Your task to perform on an android device: What's on my calendar today? Image 0: 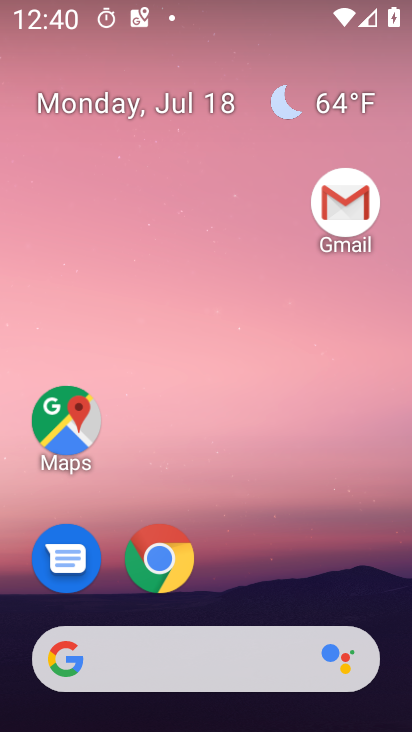
Step 0: drag from (356, 563) to (389, 95)
Your task to perform on an android device: What's on my calendar today? Image 1: 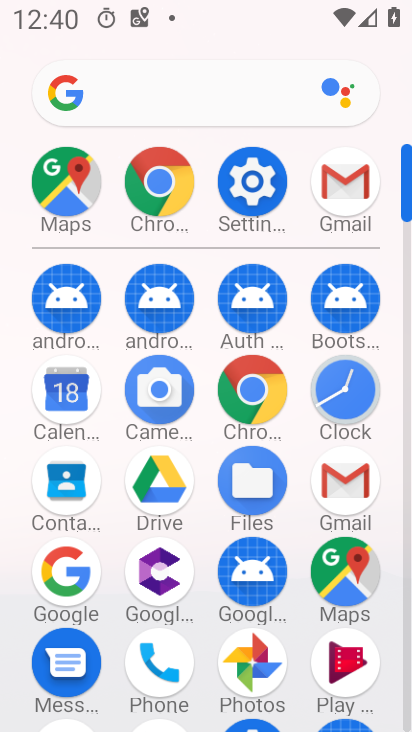
Step 1: click (70, 390)
Your task to perform on an android device: What's on my calendar today? Image 2: 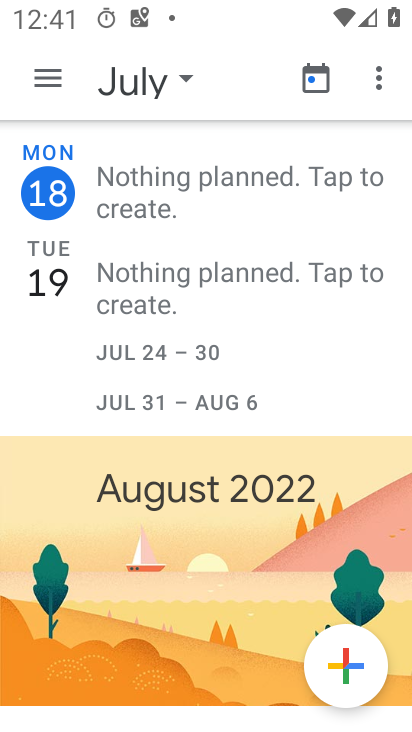
Step 2: task complete